Your task to perform on an android device: Open Google Chrome and open the bookmarks view Image 0: 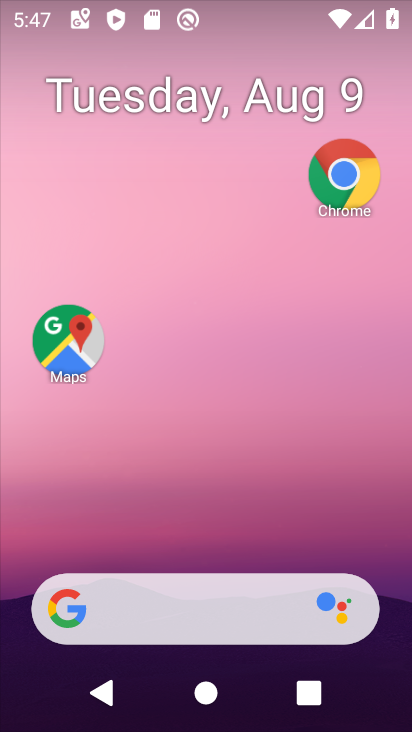
Step 0: drag from (255, 553) to (292, 142)
Your task to perform on an android device: Open Google Chrome and open the bookmarks view Image 1: 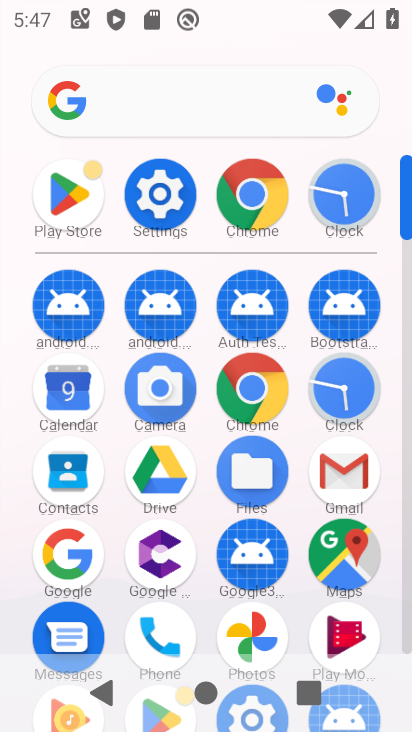
Step 1: click (253, 376)
Your task to perform on an android device: Open Google Chrome and open the bookmarks view Image 2: 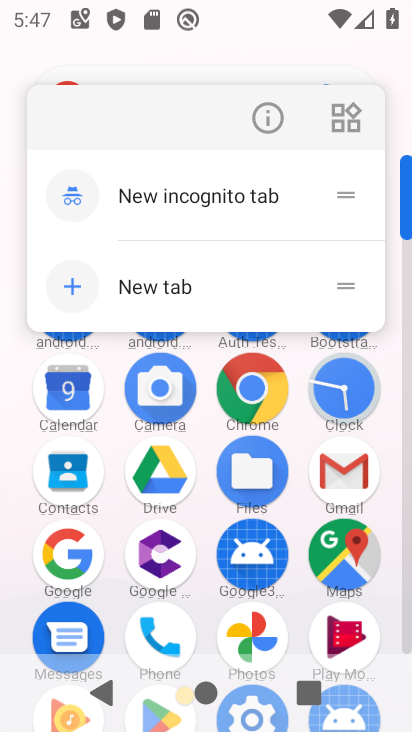
Step 2: click (250, 121)
Your task to perform on an android device: Open Google Chrome and open the bookmarks view Image 3: 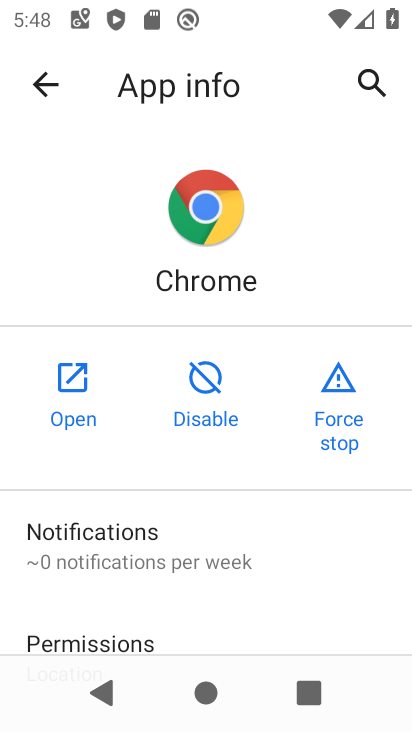
Step 3: click (69, 380)
Your task to perform on an android device: Open Google Chrome and open the bookmarks view Image 4: 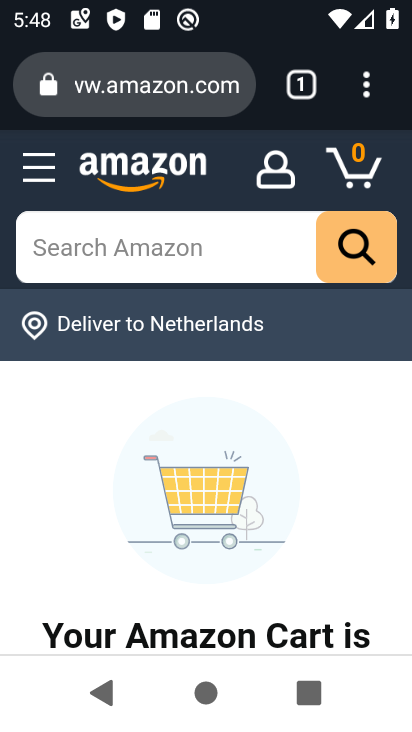
Step 4: click (369, 85)
Your task to perform on an android device: Open Google Chrome and open the bookmarks view Image 5: 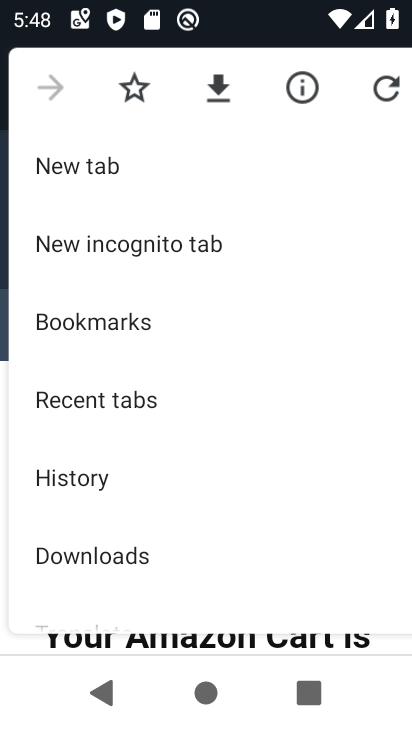
Step 5: click (122, 319)
Your task to perform on an android device: Open Google Chrome and open the bookmarks view Image 6: 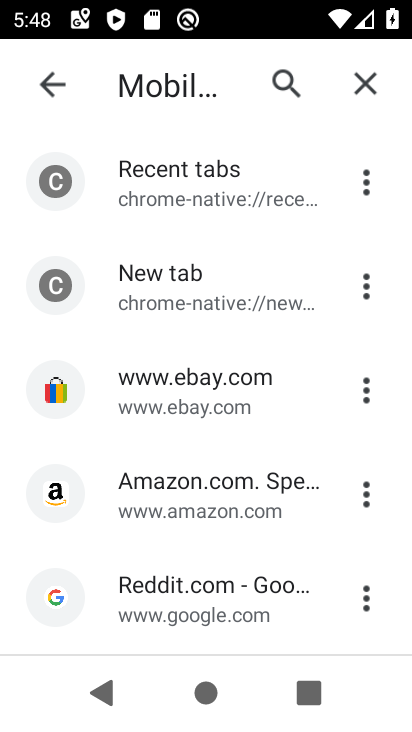
Step 6: task complete